Your task to perform on an android device: Go to Reddit.com Image 0: 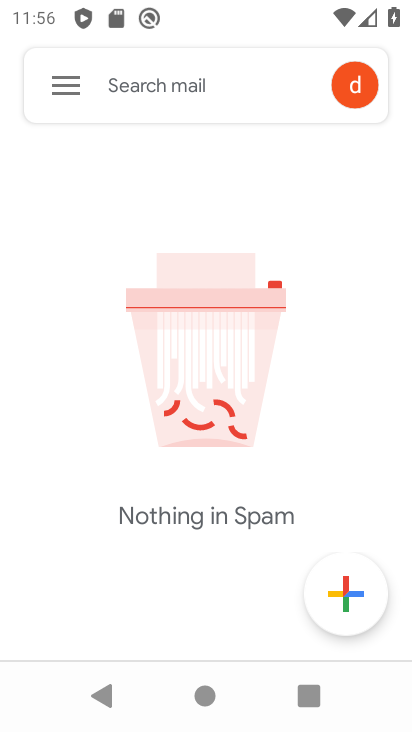
Step 0: press home button
Your task to perform on an android device: Go to Reddit.com Image 1: 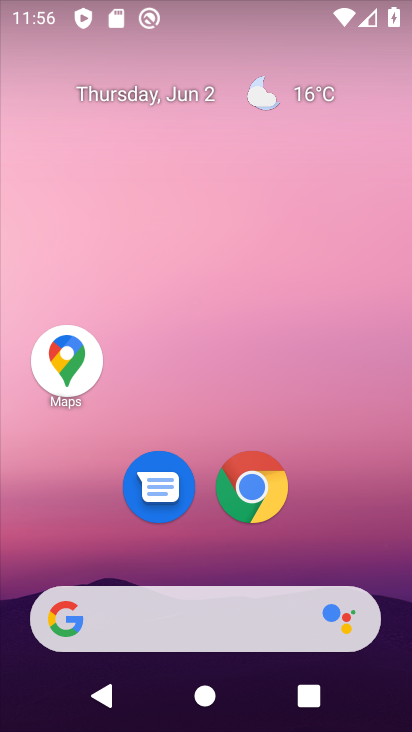
Step 1: click (148, 633)
Your task to perform on an android device: Go to Reddit.com Image 2: 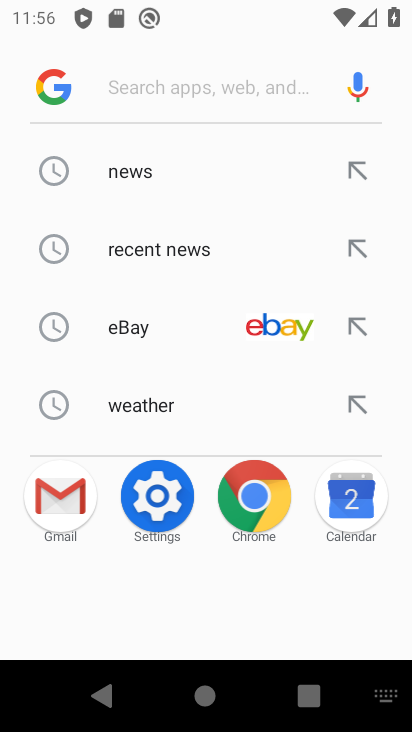
Step 2: type "Reddit.com"
Your task to perform on an android device: Go to Reddit.com Image 3: 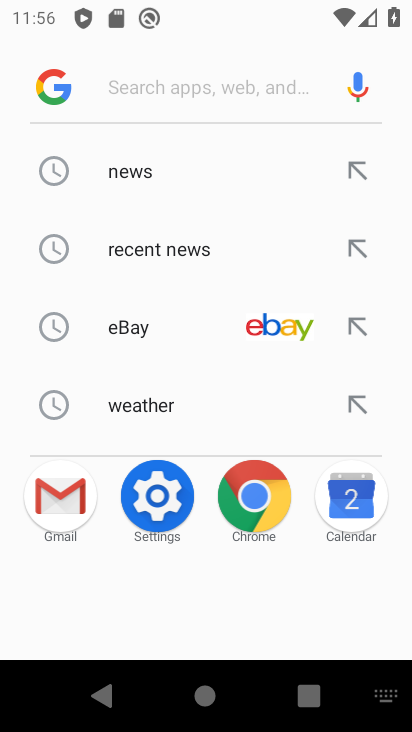
Step 3: click (170, 85)
Your task to perform on an android device: Go to Reddit.com Image 4: 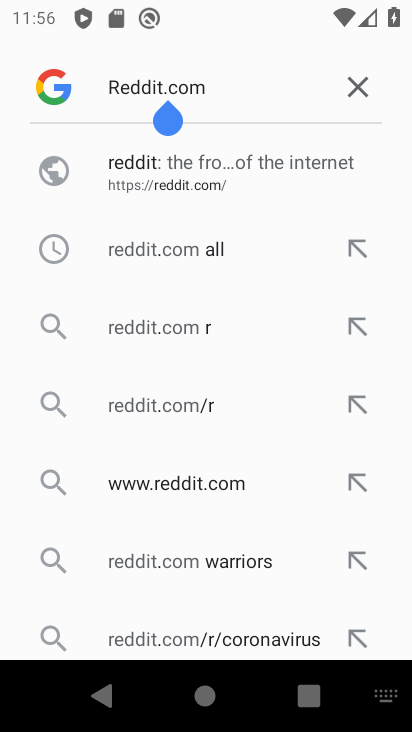
Step 4: click (203, 177)
Your task to perform on an android device: Go to Reddit.com Image 5: 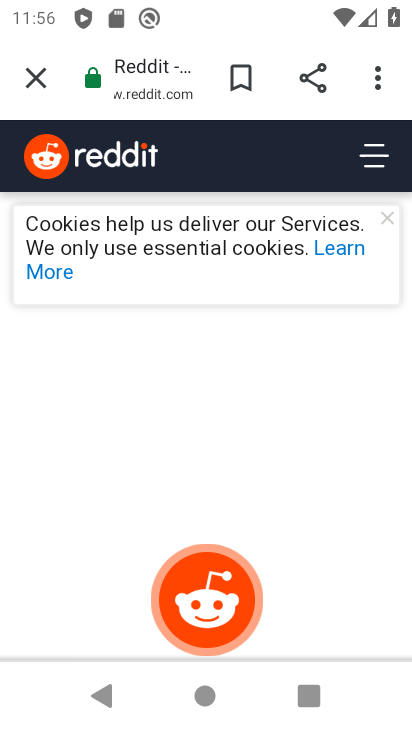
Step 5: task complete